Your task to perform on an android device: turn smart compose on in the gmail app Image 0: 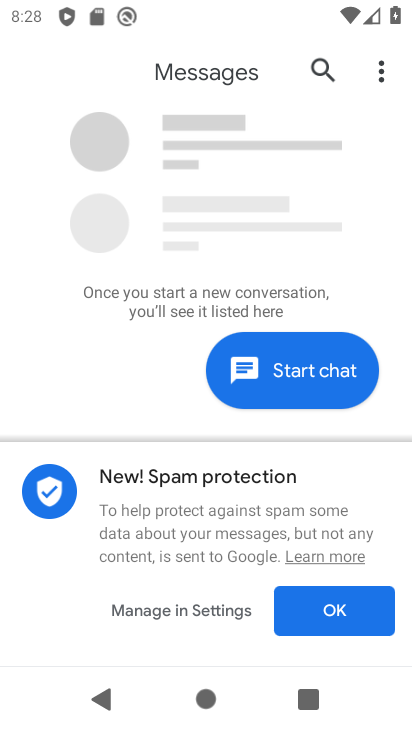
Step 0: press home button
Your task to perform on an android device: turn smart compose on in the gmail app Image 1: 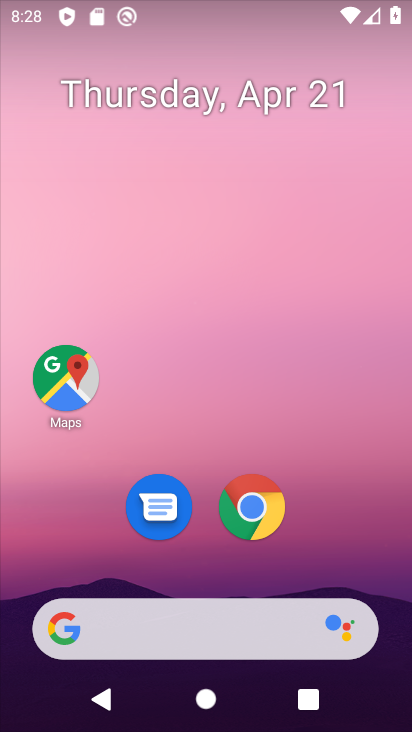
Step 1: drag from (370, 548) to (348, 111)
Your task to perform on an android device: turn smart compose on in the gmail app Image 2: 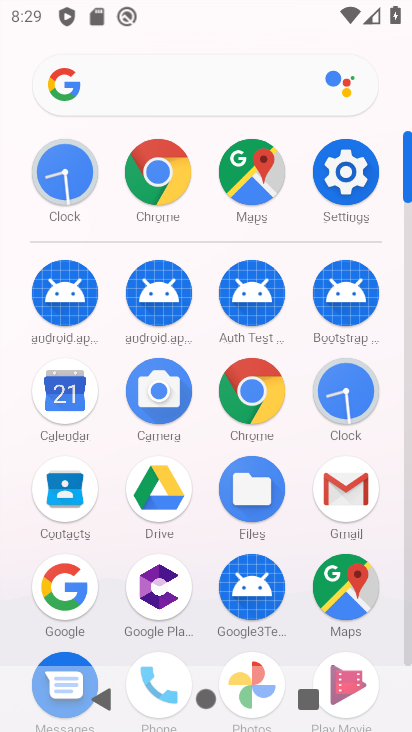
Step 2: click (350, 490)
Your task to perform on an android device: turn smart compose on in the gmail app Image 3: 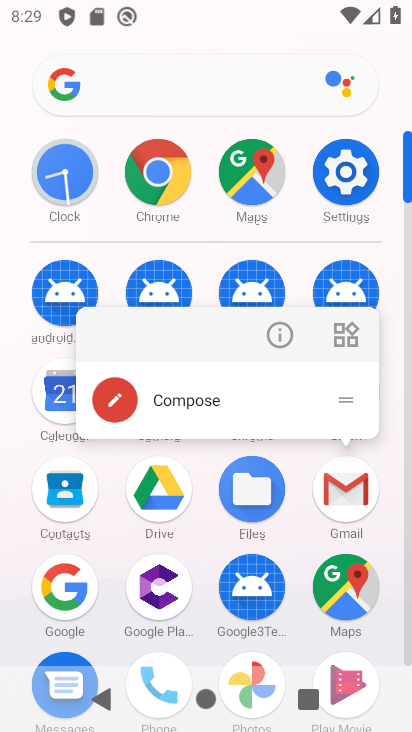
Step 3: click (336, 507)
Your task to perform on an android device: turn smart compose on in the gmail app Image 4: 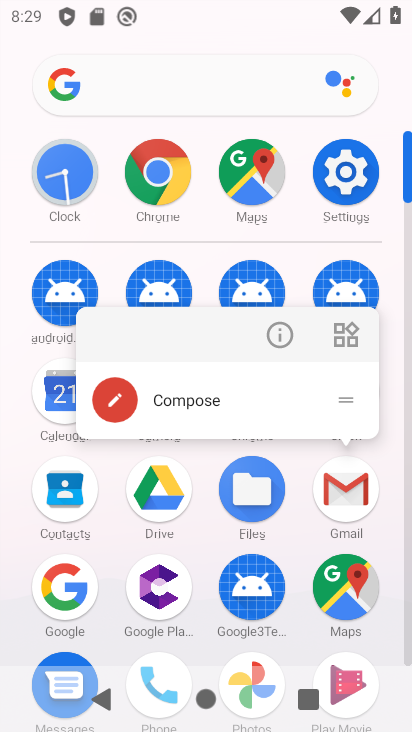
Step 4: click (344, 513)
Your task to perform on an android device: turn smart compose on in the gmail app Image 5: 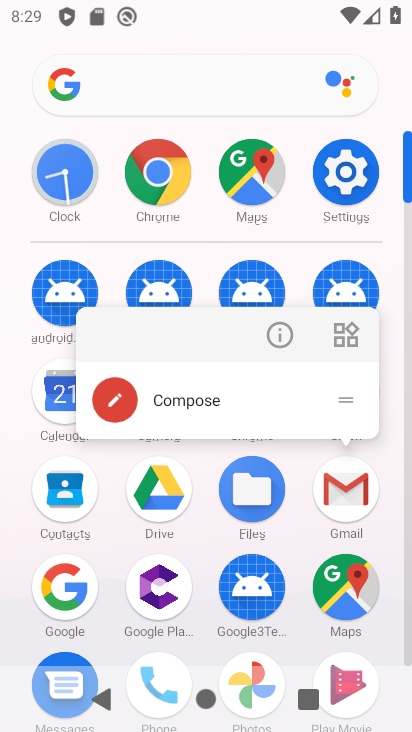
Step 5: click (357, 515)
Your task to perform on an android device: turn smart compose on in the gmail app Image 6: 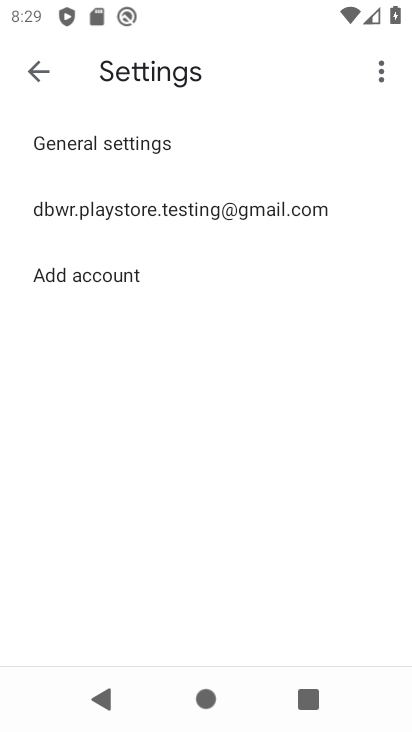
Step 6: click (273, 208)
Your task to perform on an android device: turn smart compose on in the gmail app Image 7: 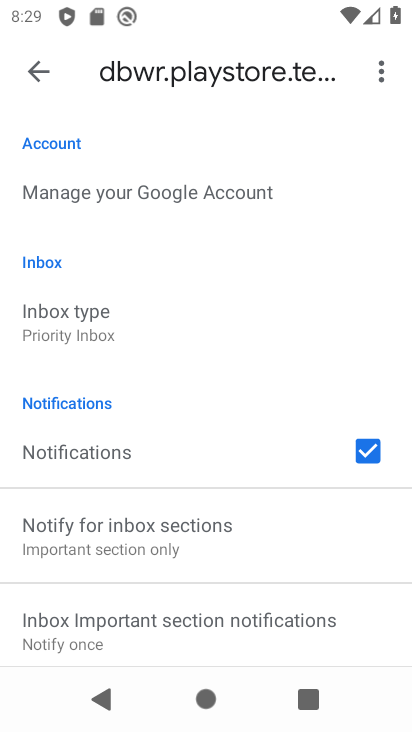
Step 7: task complete